Your task to perform on an android device: Open Google Chrome and open the bookmarks view Image 0: 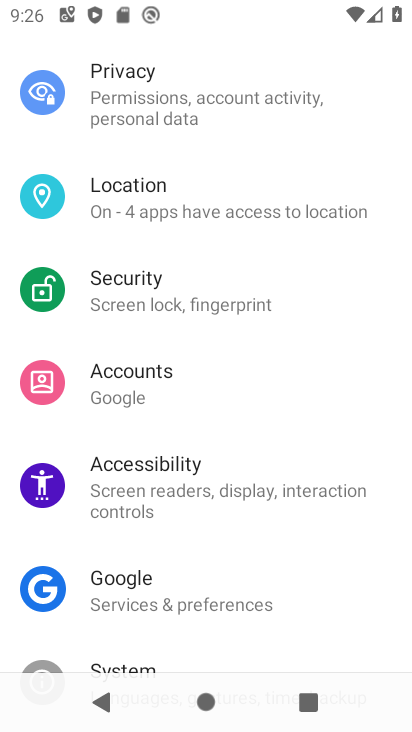
Step 0: press home button
Your task to perform on an android device: Open Google Chrome and open the bookmarks view Image 1: 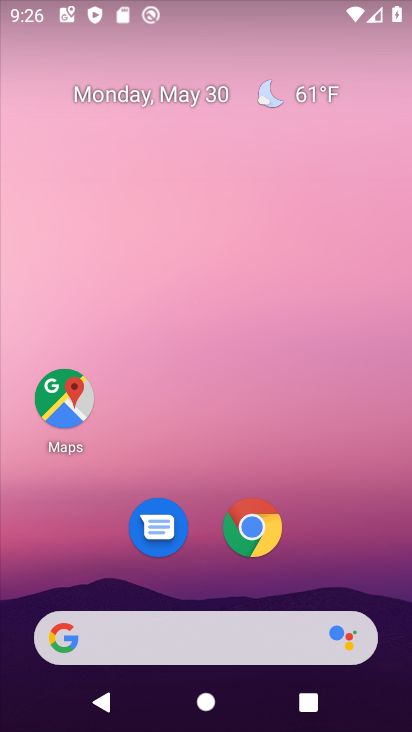
Step 1: click (257, 525)
Your task to perform on an android device: Open Google Chrome and open the bookmarks view Image 2: 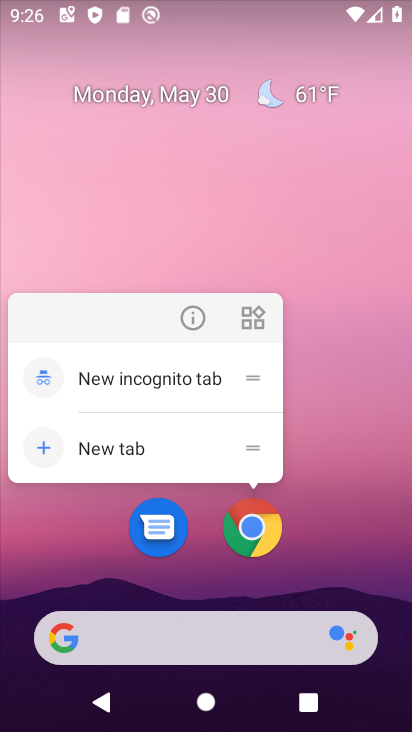
Step 2: click (258, 525)
Your task to perform on an android device: Open Google Chrome and open the bookmarks view Image 3: 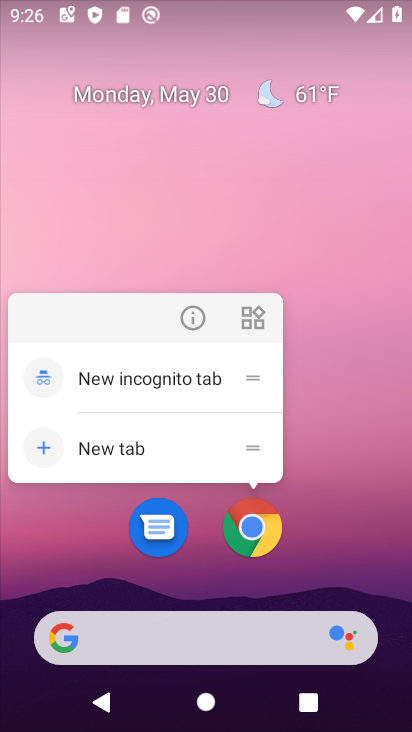
Step 3: click (263, 522)
Your task to perform on an android device: Open Google Chrome and open the bookmarks view Image 4: 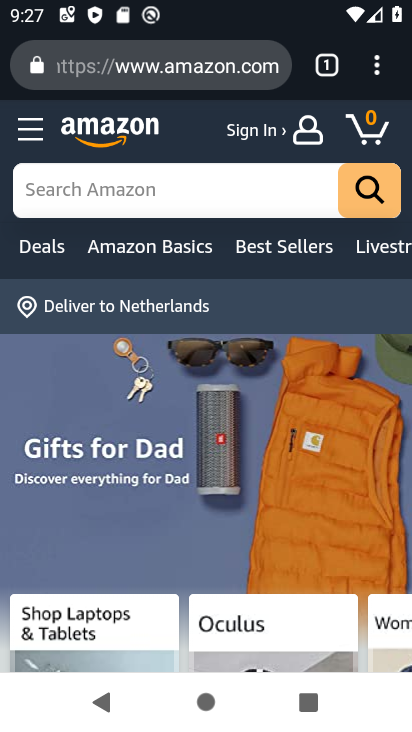
Step 4: click (373, 70)
Your task to perform on an android device: Open Google Chrome and open the bookmarks view Image 5: 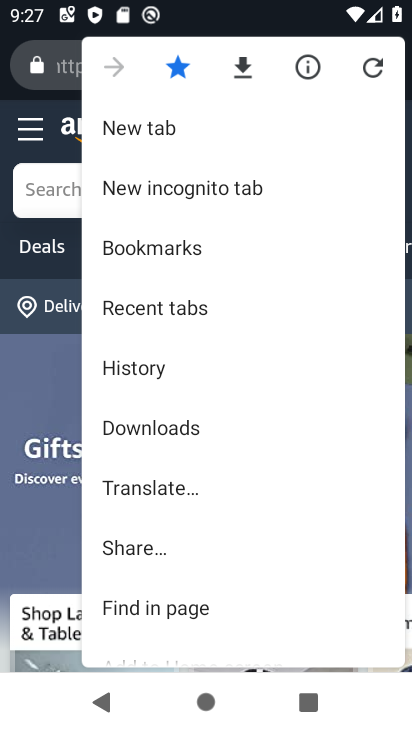
Step 5: click (156, 248)
Your task to perform on an android device: Open Google Chrome and open the bookmarks view Image 6: 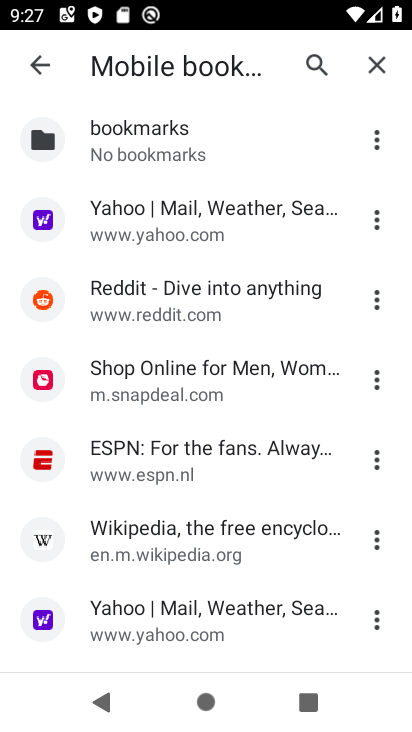
Step 6: task complete